Your task to perform on an android device: Go to Wikipedia Image 0: 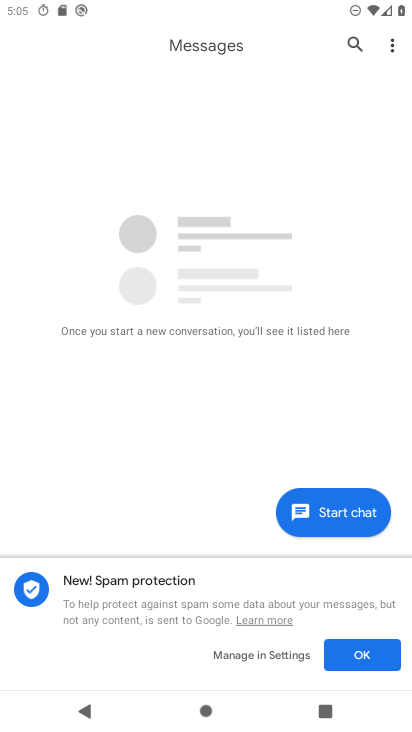
Step 0: press home button
Your task to perform on an android device: Go to Wikipedia Image 1: 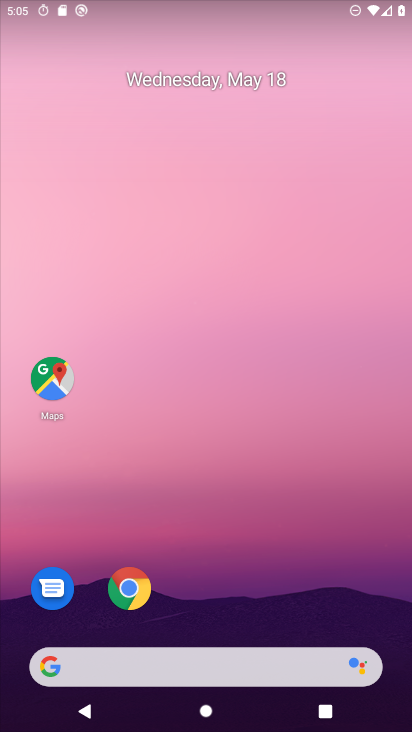
Step 1: click (130, 584)
Your task to perform on an android device: Go to Wikipedia Image 2: 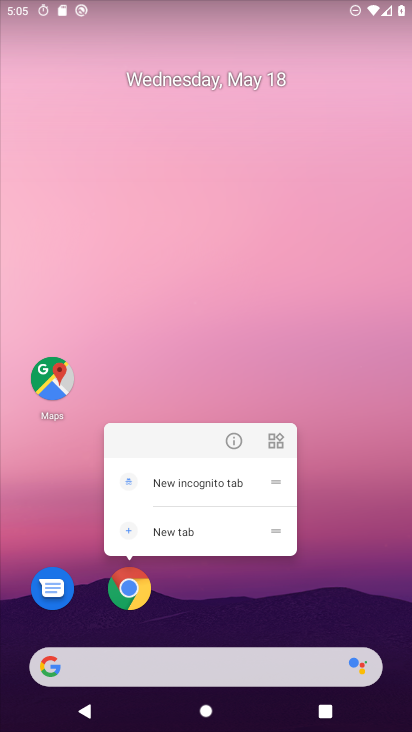
Step 2: click (131, 581)
Your task to perform on an android device: Go to Wikipedia Image 3: 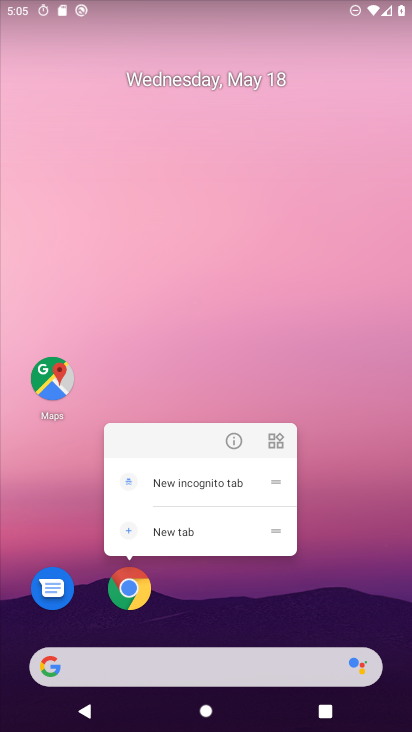
Step 3: click (124, 588)
Your task to perform on an android device: Go to Wikipedia Image 4: 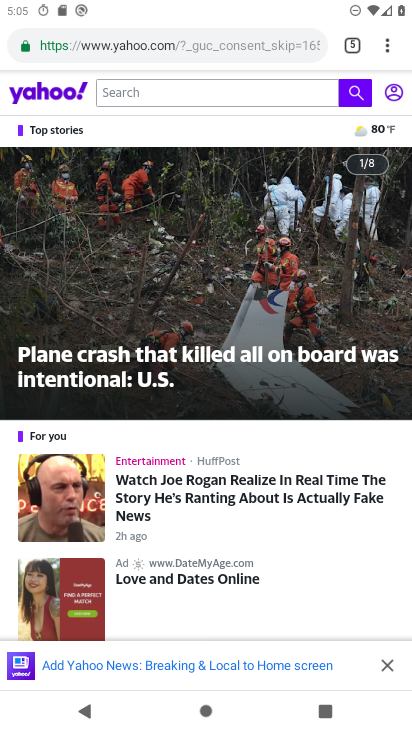
Step 4: drag from (385, 42) to (220, 97)
Your task to perform on an android device: Go to Wikipedia Image 5: 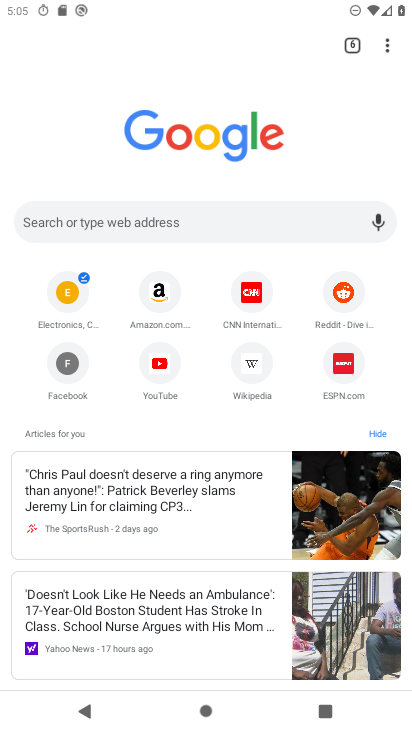
Step 5: click (260, 365)
Your task to perform on an android device: Go to Wikipedia Image 6: 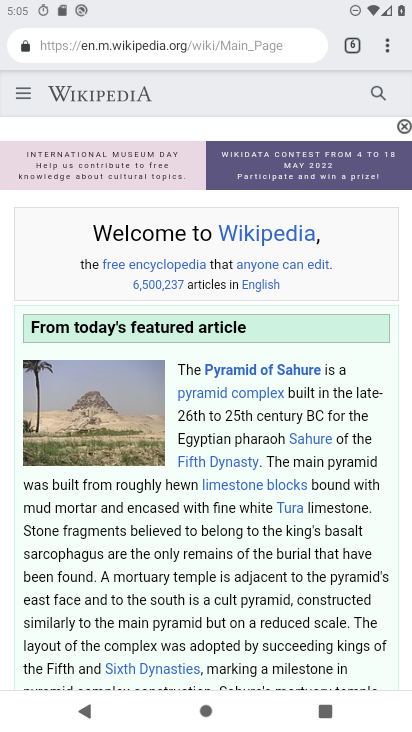
Step 6: task complete